Your task to perform on an android device: open app "Google Find My Device" (install if not already installed) Image 0: 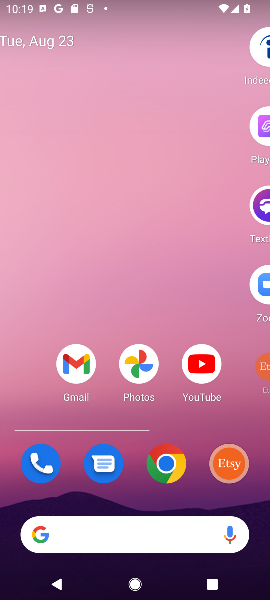
Step 0: press home button
Your task to perform on an android device: open app "Google Find My Device" (install if not already installed) Image 1: 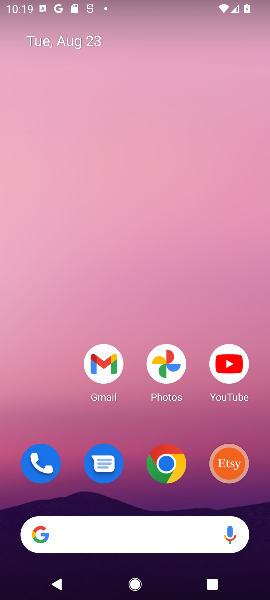
Step 1: drag from (132, 435) to (77, 10)
Your task to perform on an android device: open app "Google Find My Device" (install if not already installed) Image 2: 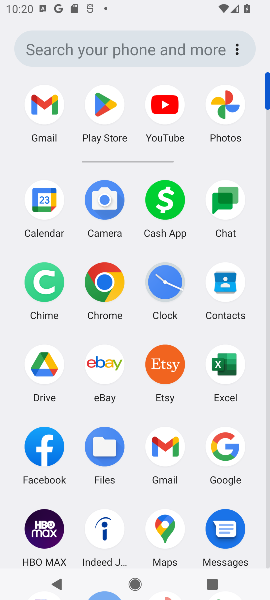
Step 2: click (106, 102)
Your task to perform on an android device: open app "Google Find My Device" (install if not already installed) Image 3: 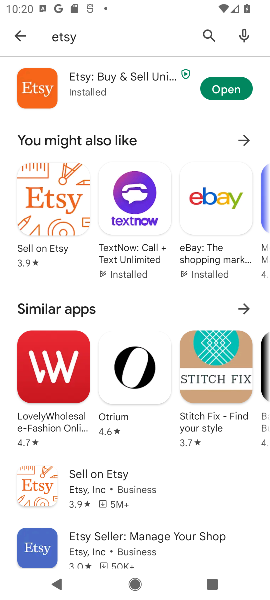
Step 3: click (200, 38)
Your task to perform on an android device: open app "Google Find My Device" (install if not already installed) Image 4: 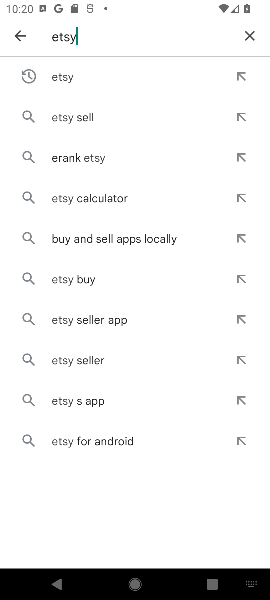
Step 4: click (245, 37)
Your task to perform on an android device: open app "Google Find My Device" (install if not already installed) Image 5: 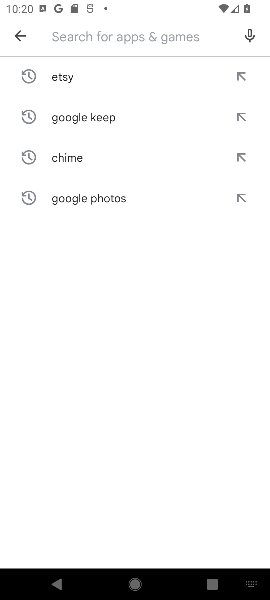
Step 5: type "Google Find My Device"
Your task to perform on an android device: open app "Google Find My Device" (install if not already installed) Image 6: 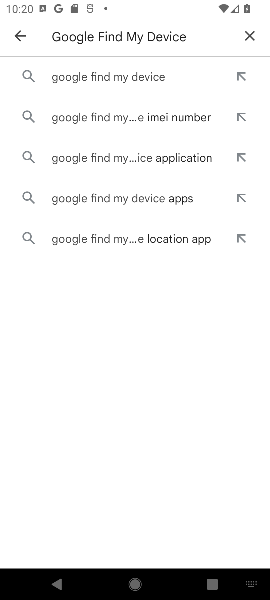
Step 6: click (114, 80)
Your task to perform on an android device: open app "Google Find My Device" (install if not already installed) Image 7: 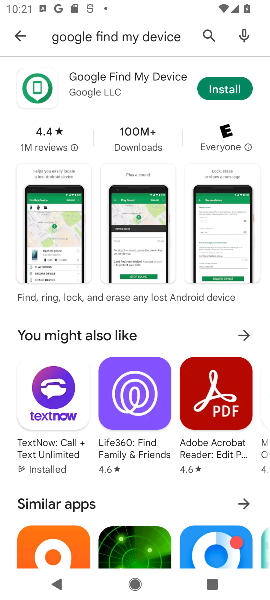
Step 7: click (228, 91)
Your task to perform on an android device: open app "Google Find My Device" (install if not already installed) Image 8: 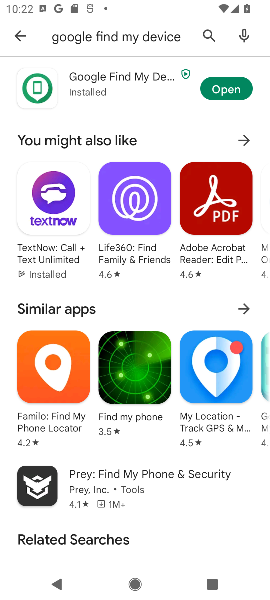
Step 8: click (228, 91)
Your task to perform on an android device: open app "Google Find My Device" (install if not already installed) Image 9: 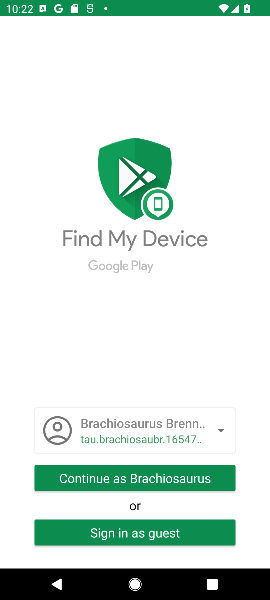
Step 9: click (133, 480)
Your task to perform on an android device: open app "Google Find My Device" (install if not already installed) Image 10: 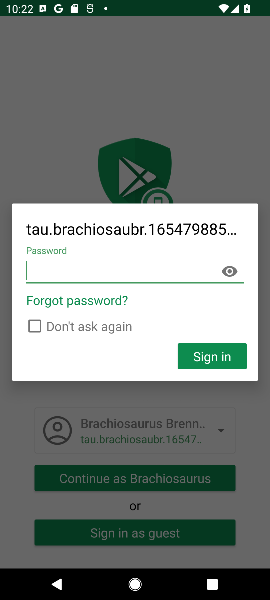
Step 10: click (32, 327)
Your task to perform on an android device: open app "Google Find My Device" (install if not already installed) Image 11: 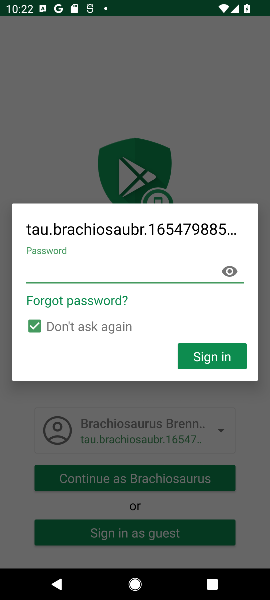
Step 11: click (211, 348)
Your task to perform on an android device: open app "Google Find My Device" (install if not already installed) Image 12: 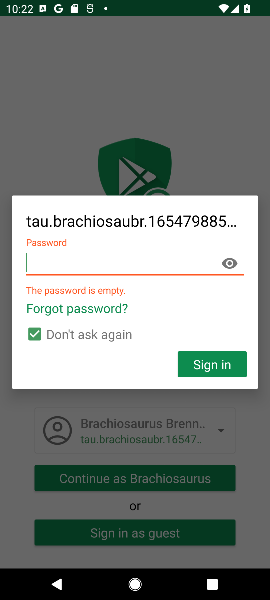
Step 12: task complete